Your task to perform on an android device: Install the Yahoo app Image 0: 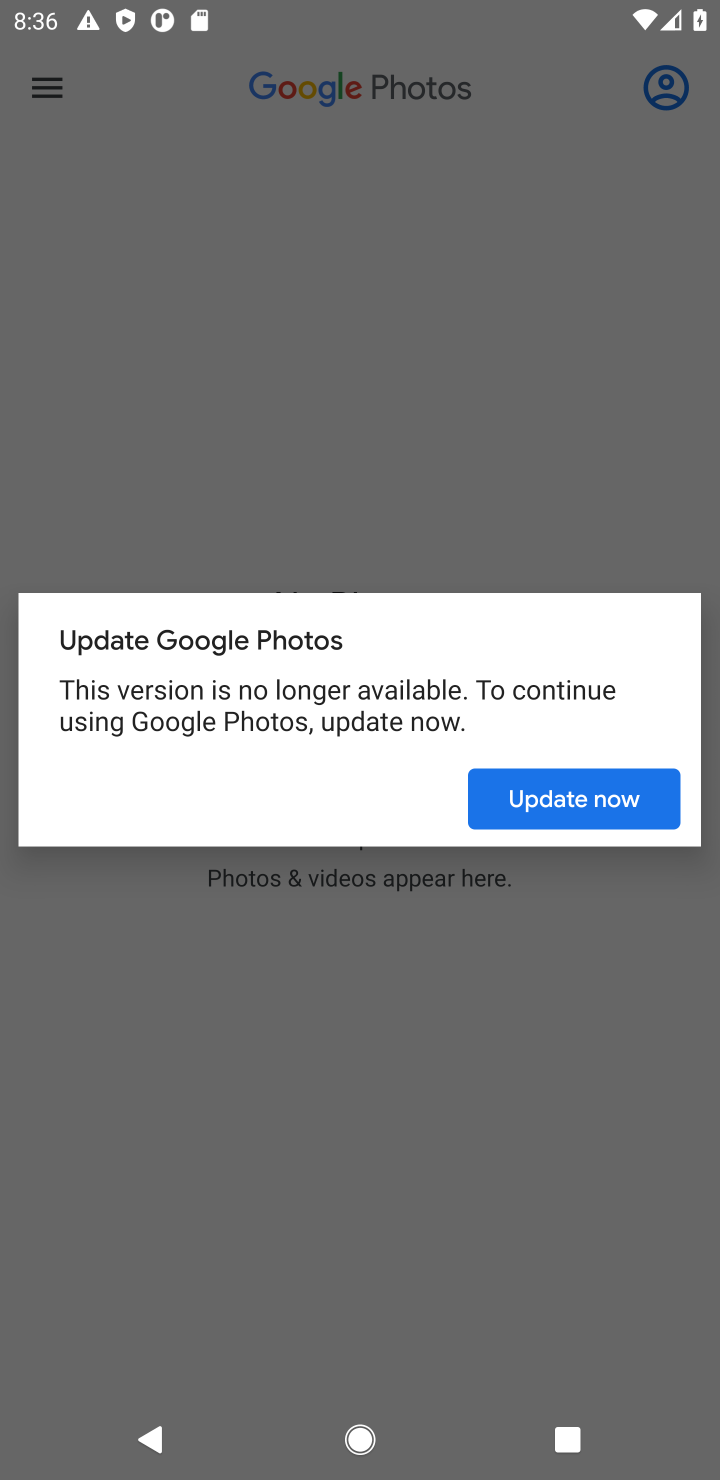
Step 0: press home button
Your task to perform on an android device: Install the Yahoo app Image 1: 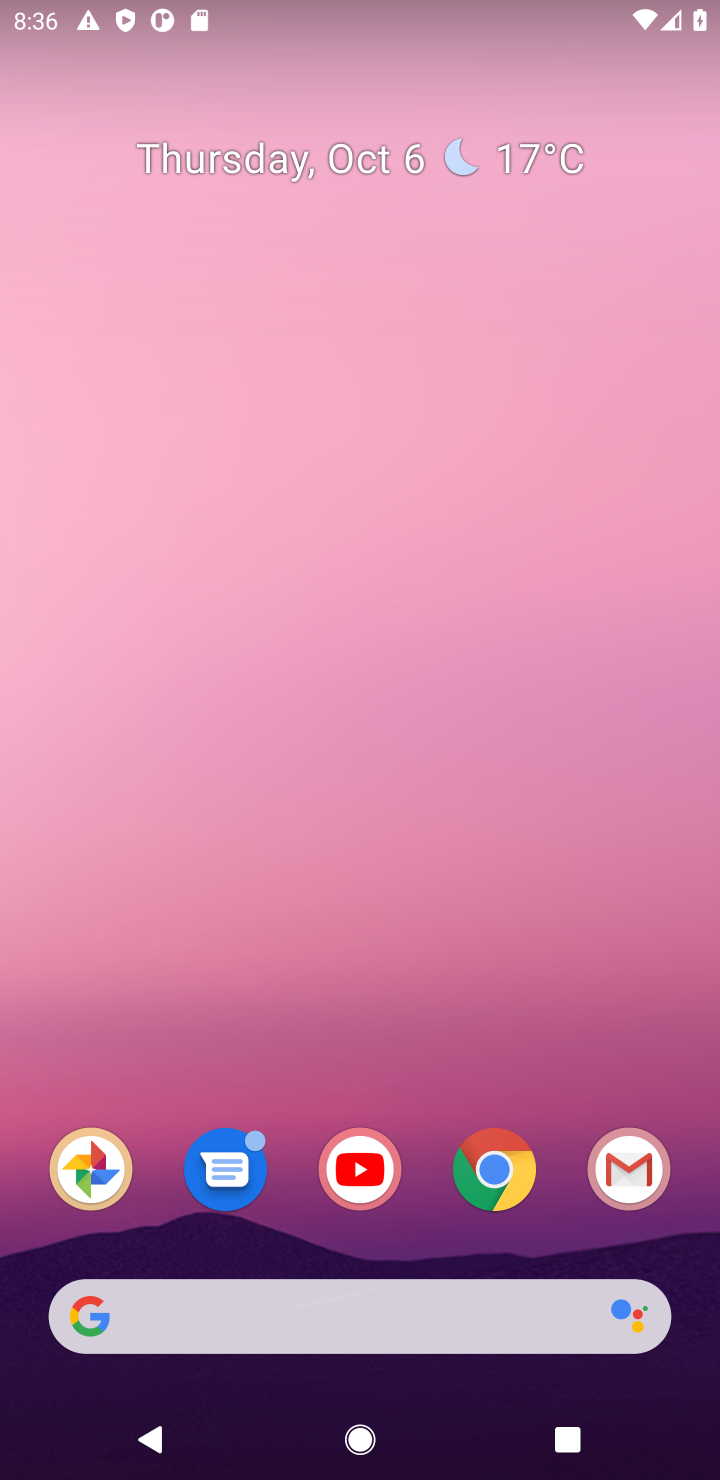
Step 1: drag from (302, 1208) to (524, 226)
Your task to perform on an android device: Install the Yahoo app Image 2: 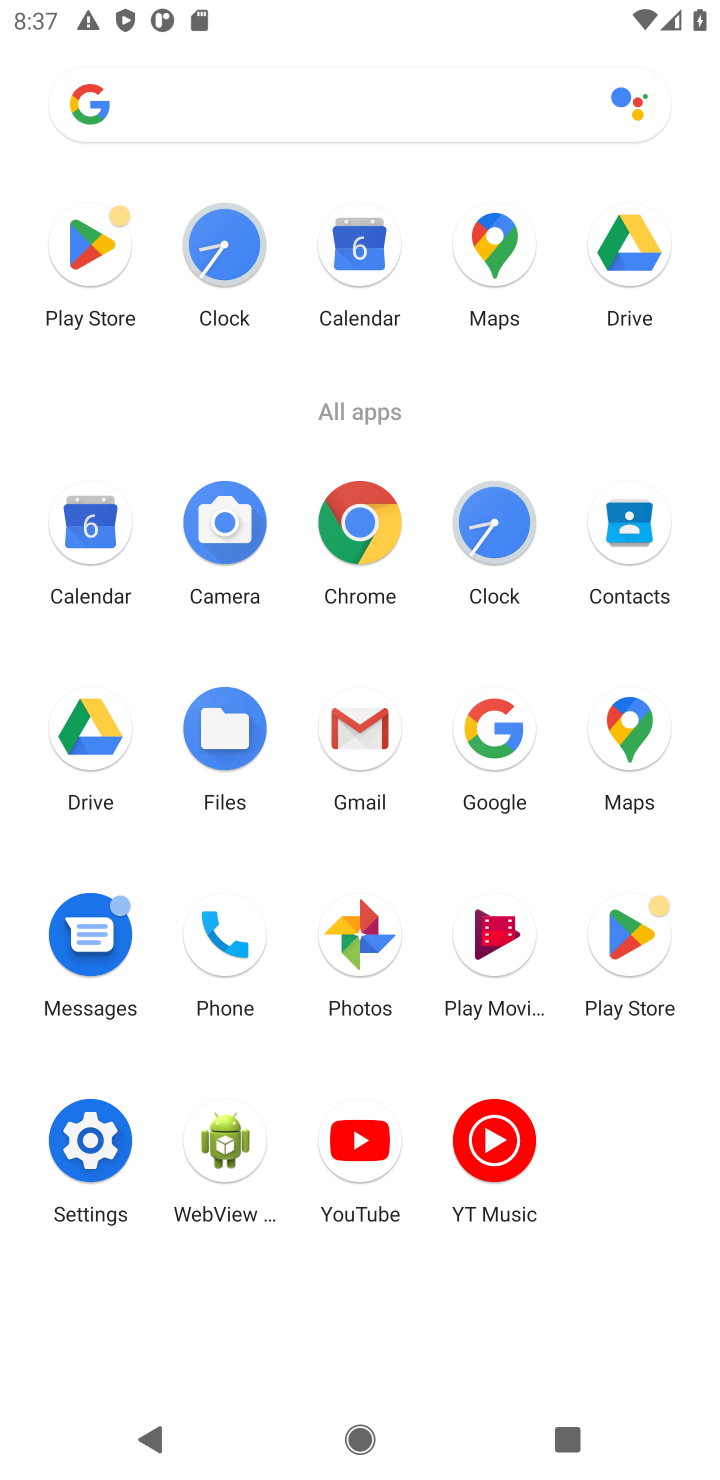
Step 2: click (636, 952)
Your task to perform on an android device: Install the Yahoo app Image 3: 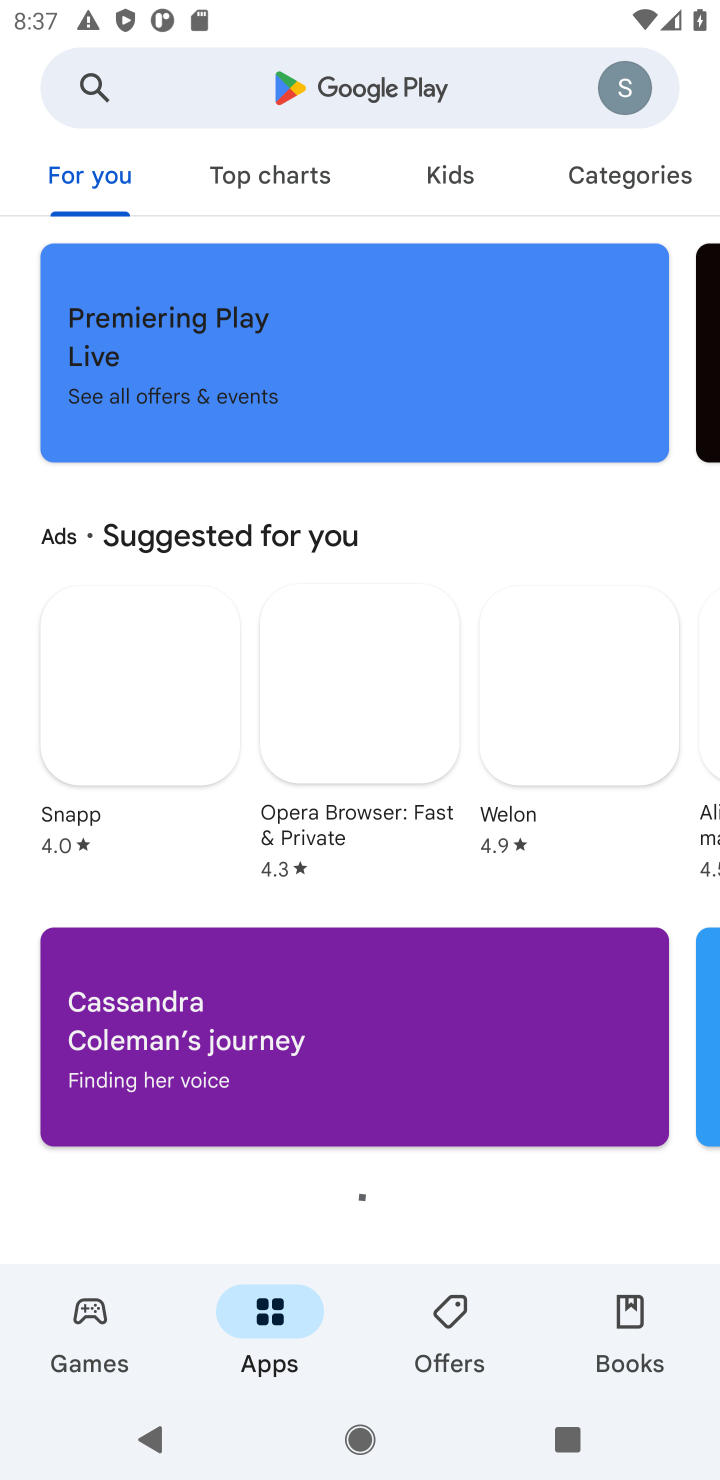
Step 3: click (369, 104)
Your task to perform on an android device: Install the Yahoo app Image 4: 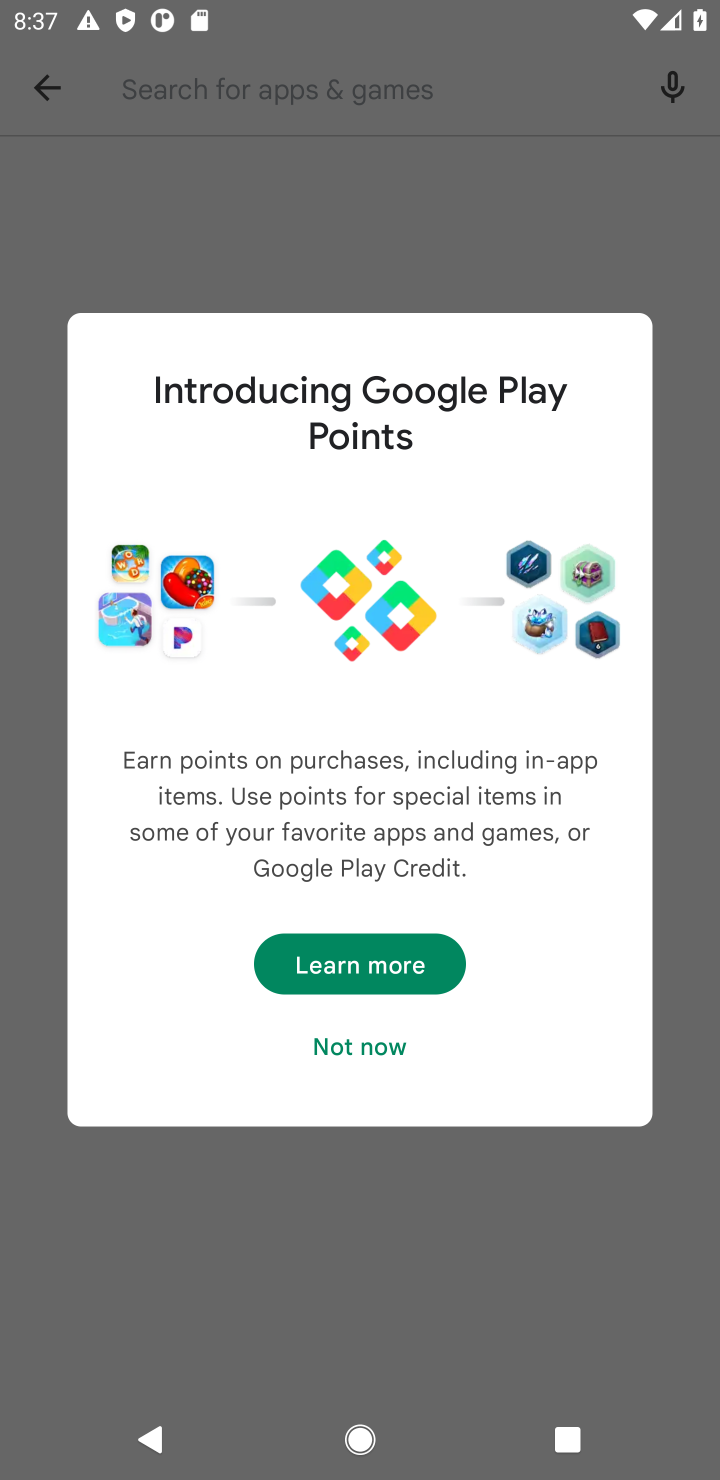
Step 4: click (383, 1035)
Your task to perform on an android device: Install the Yahoo app Image 5: 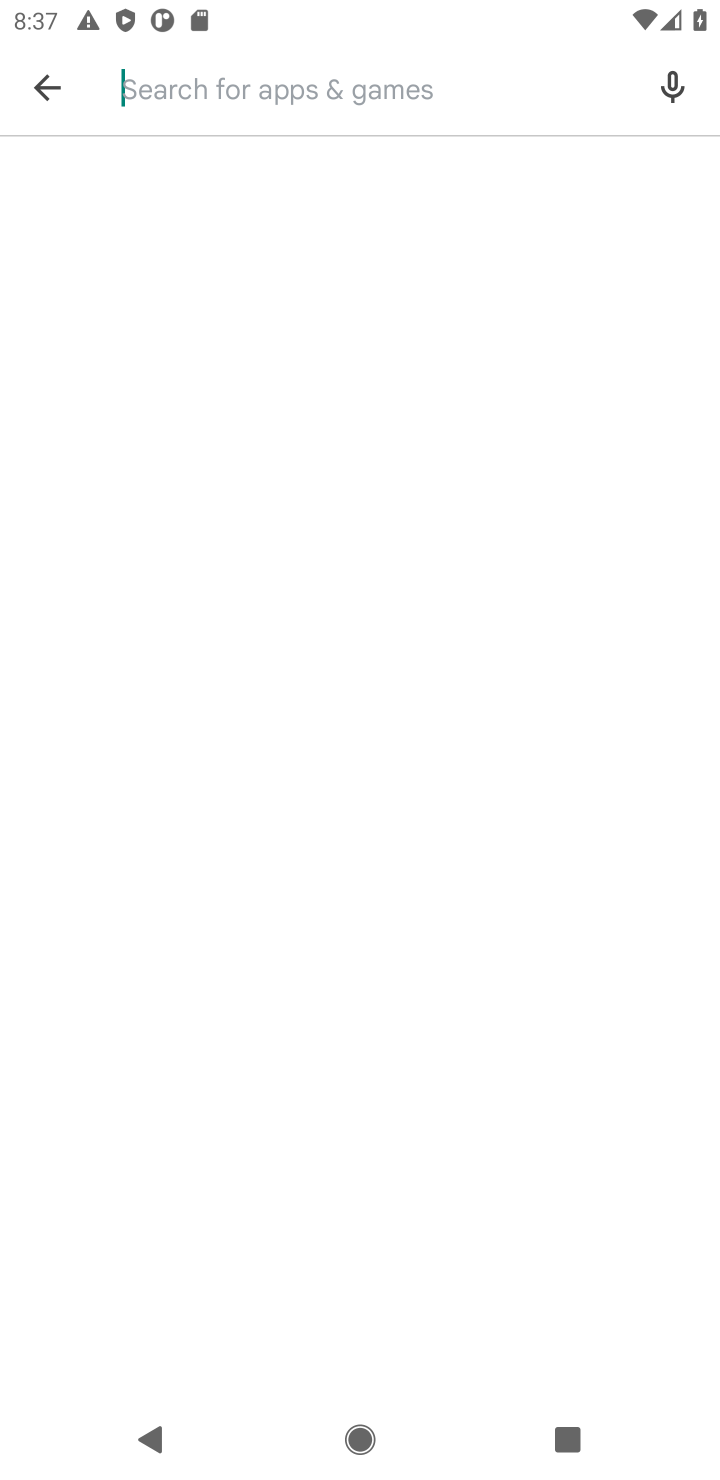
Step 5: click (219, 97)
Your task to perform on an android device: Install the Yahoo app Image 6: 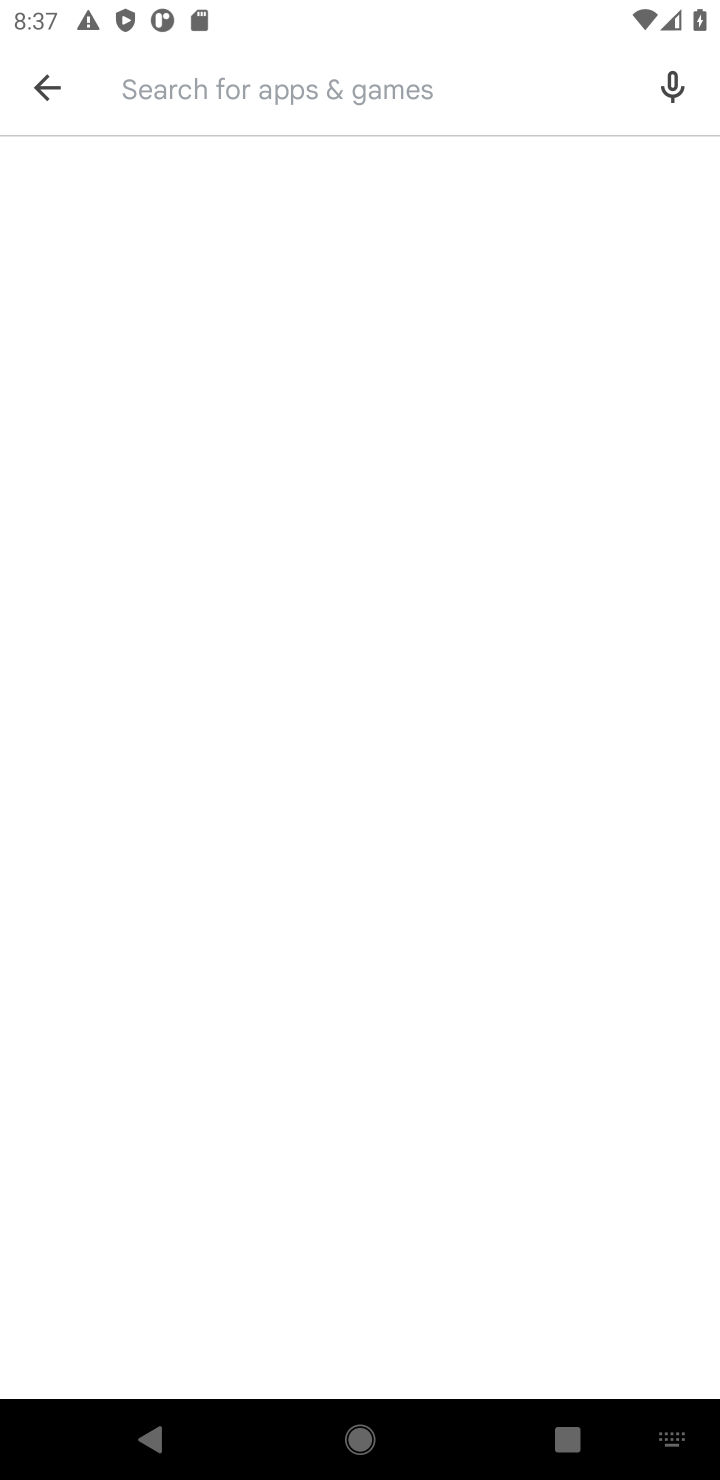
Step 6: type "Yahoo app"
Your task to perform on an android device: Install the Yahoo app Image 7: 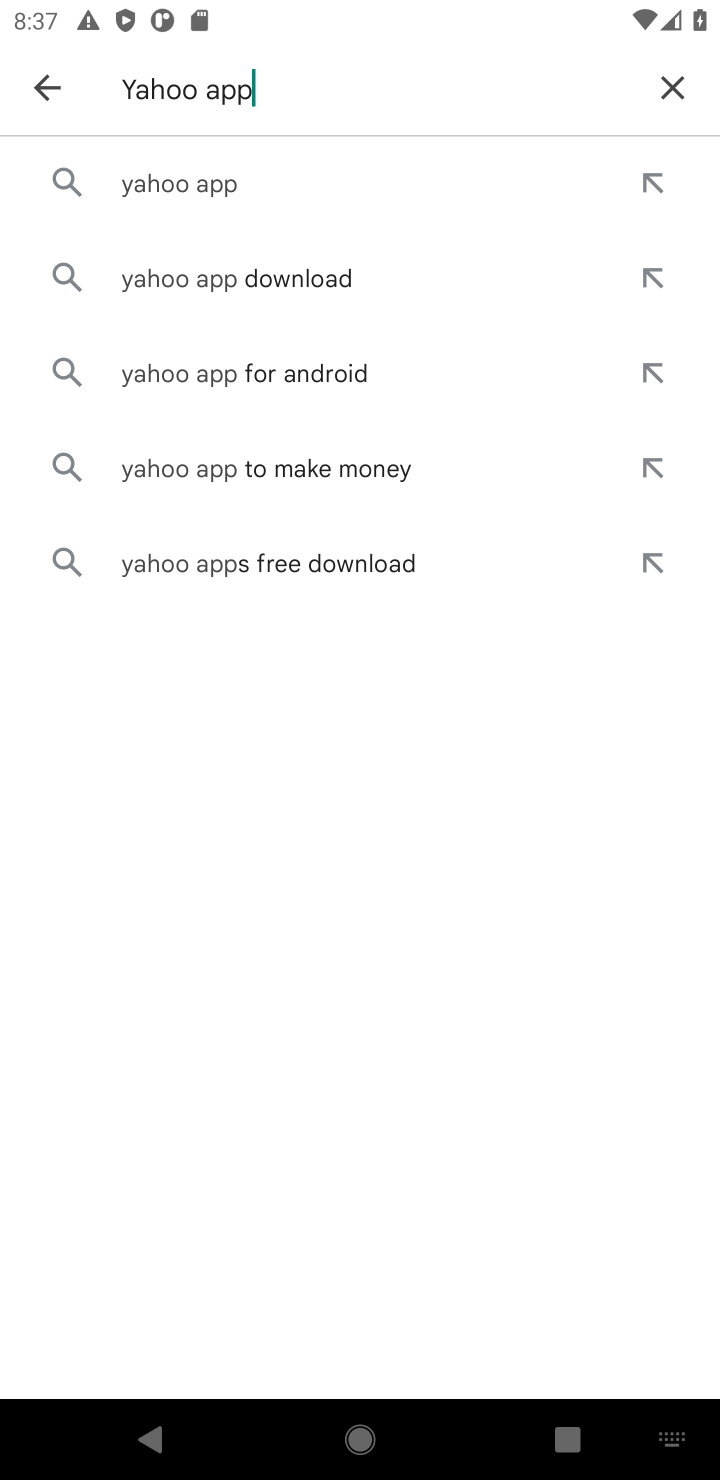
Step 7: click (216, 190)
Your task to perform on an android device: Install the Yahoo app Image 8: 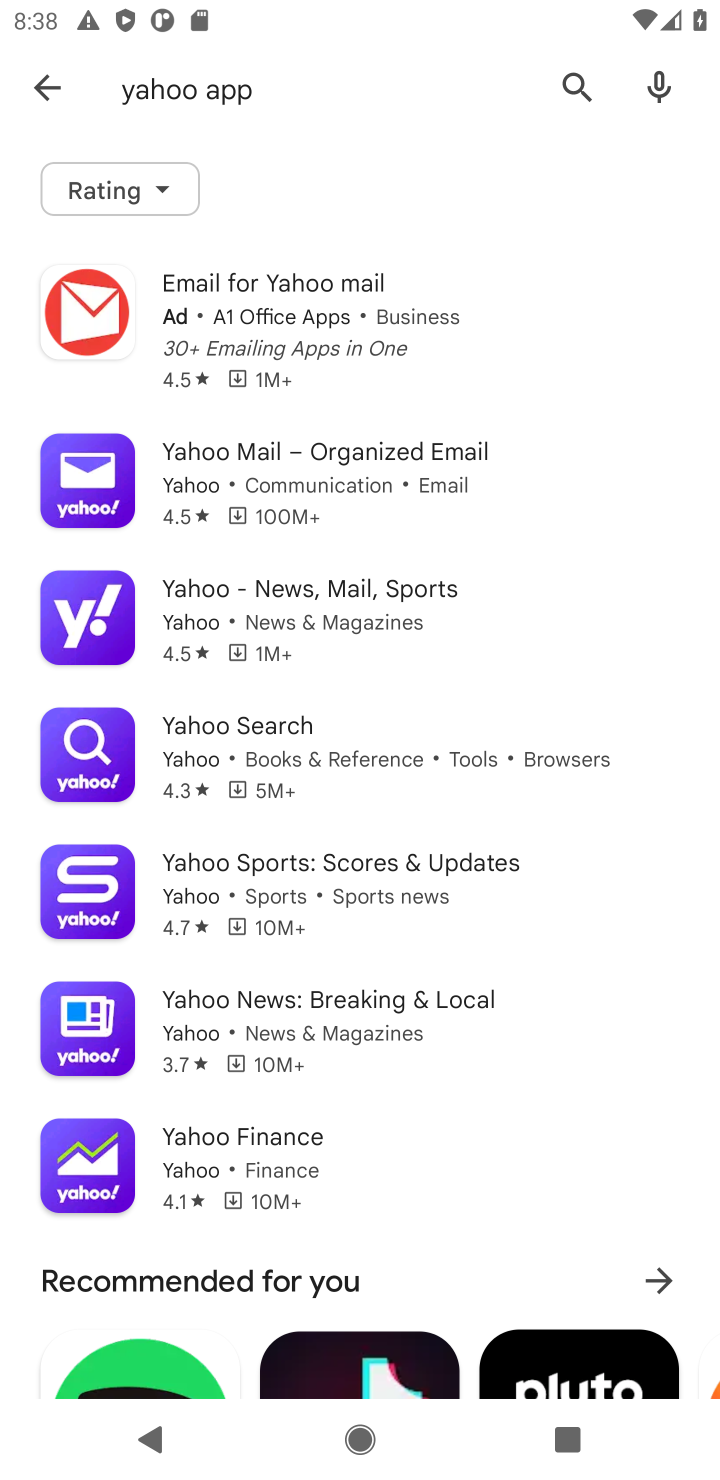
Step 8: click (472, 453)
Your task to perform on an android device: Install the Yahoo app Image 9: 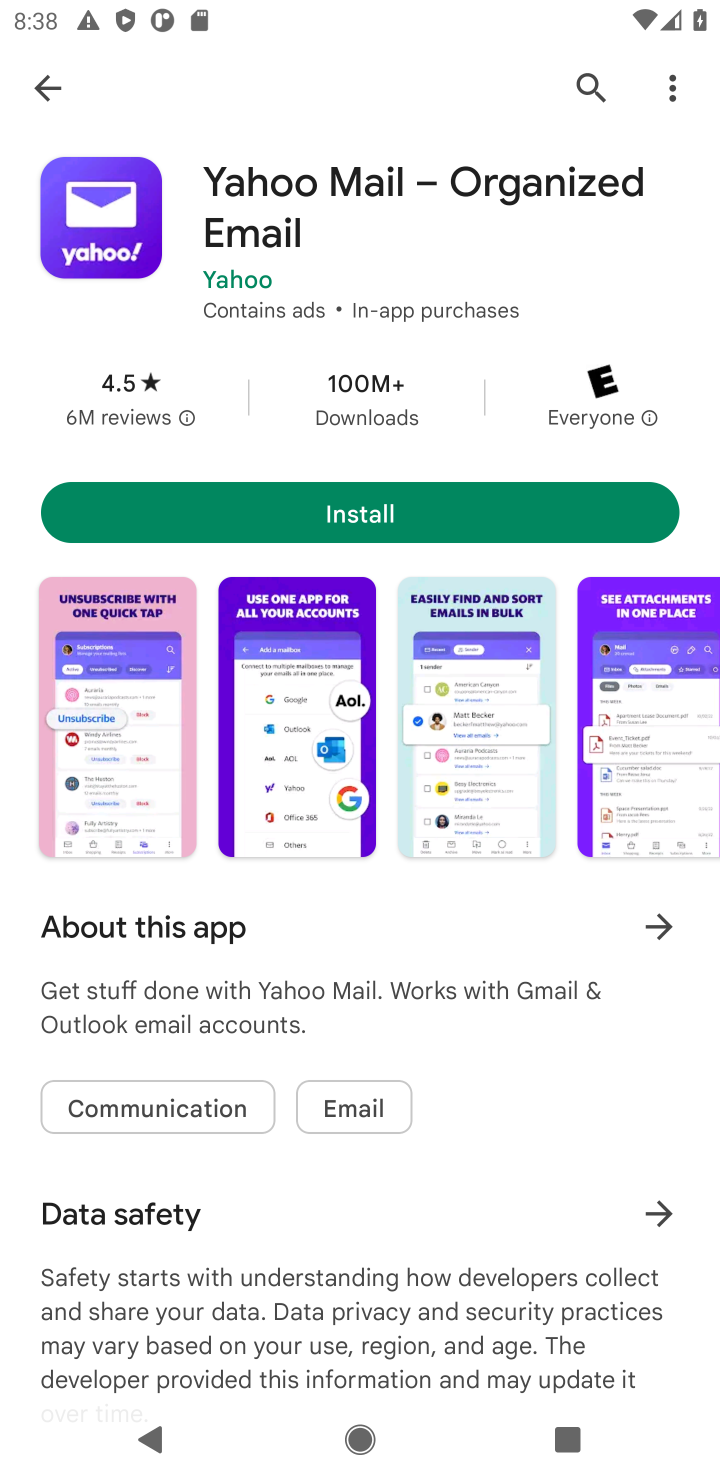
Step 9: click (400, 522)
Your task to perform on an android device: Install the Yahoo app Image 10: 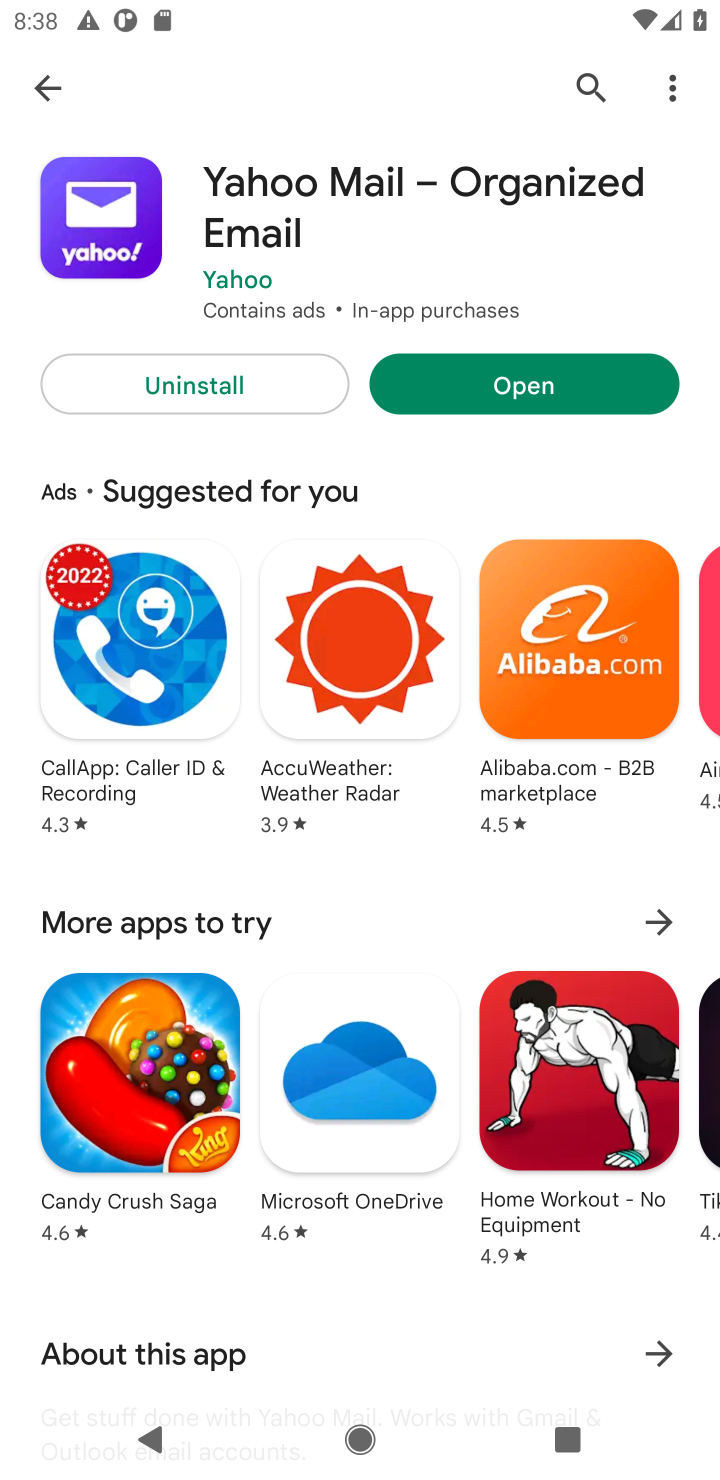
Step 10: task complete